Your task to perform on an android device: Go to ESPN.com Image 0: 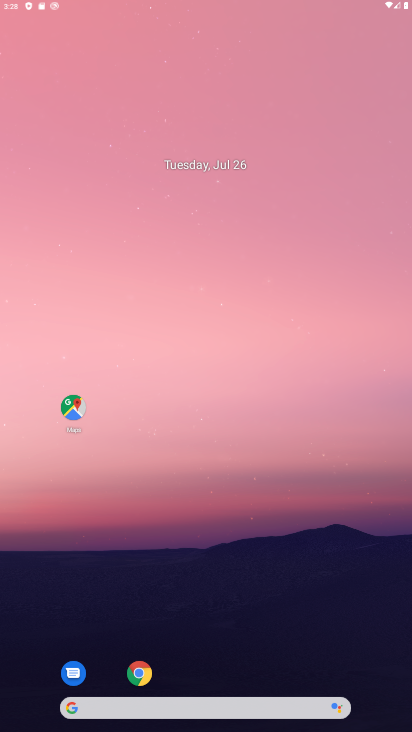
Step 0: click (121, 700)
Your task to perform on an android device: Go to ESPN.com Image 1: 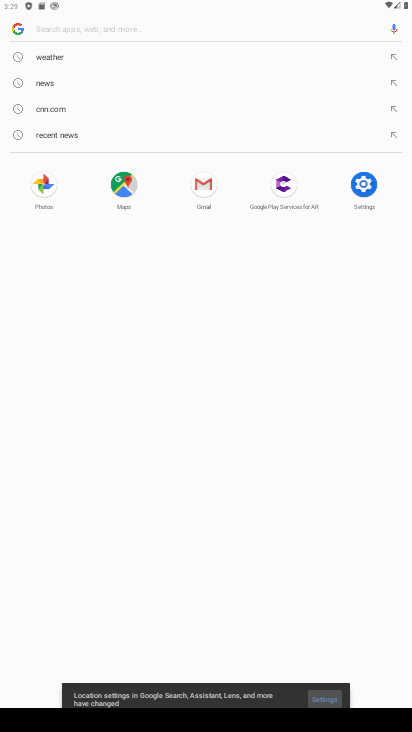
Step 1: press home button
Your task to perform on an android device: Go to ESPN.com Image 2: 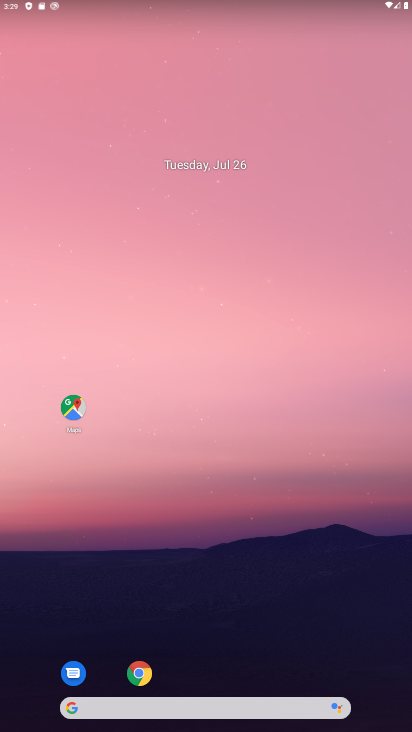
Step 2: drag from (243, 673) to (251, 183)
Your task to perform on an android device: Go to ESPN.com Image 3: 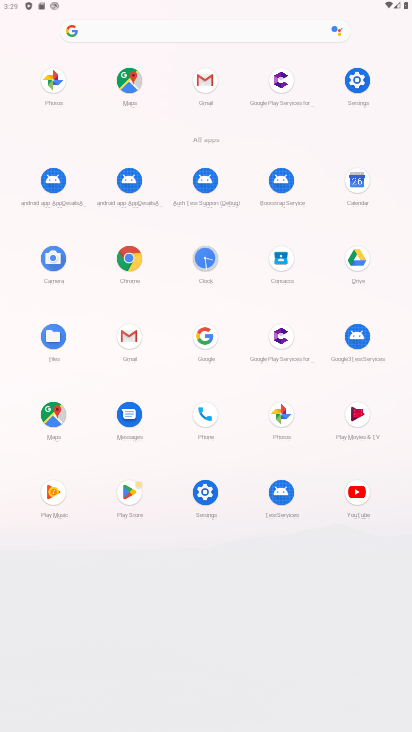
Step 3: click (139, 254)
Your task to perform on an android device: Go to ESPN.com Image 4: 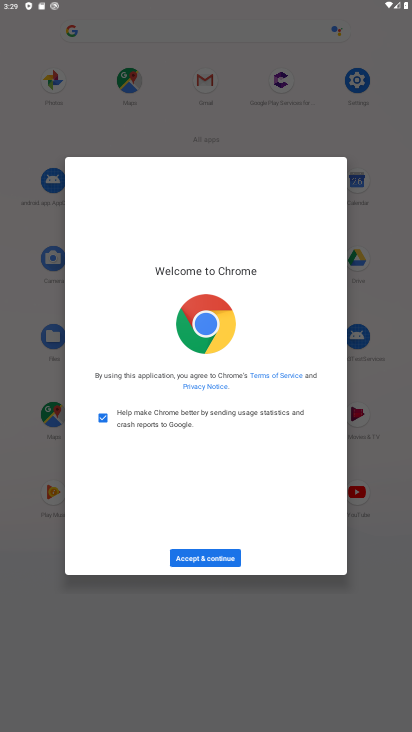
Step 4: click (216, 557)
Your task to perform on an android device: Go to ESPN.com Image 5: 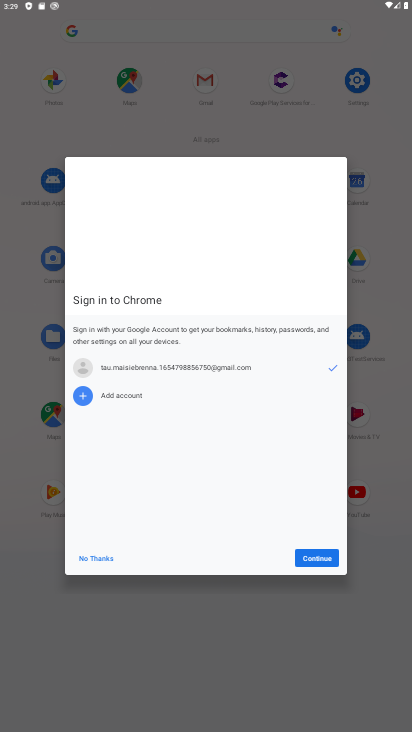
Step 5: click (315, 563)
Your task to perform on an android device: Go to ESPN.com Image 6: 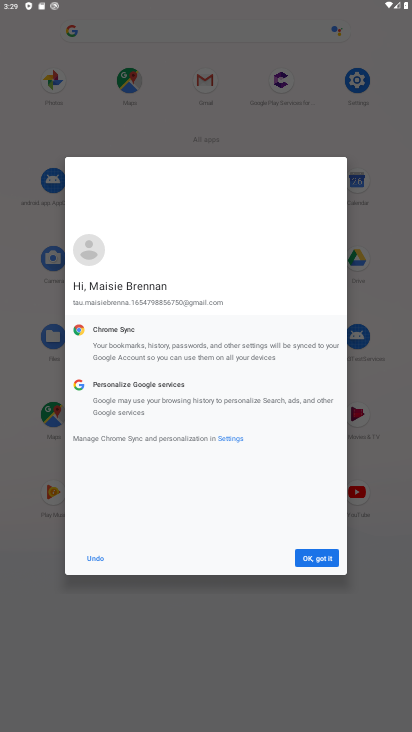
Step 6: click (315, 553)
Your task to perform on an android device: Go to ESPN.com Image 7: 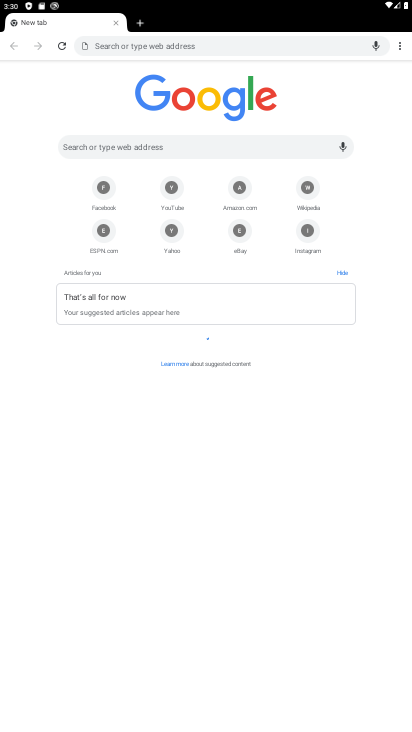
Step 7: click (103, 229)
Your task to perform on an android device: Go to ESPN.com Image 8: 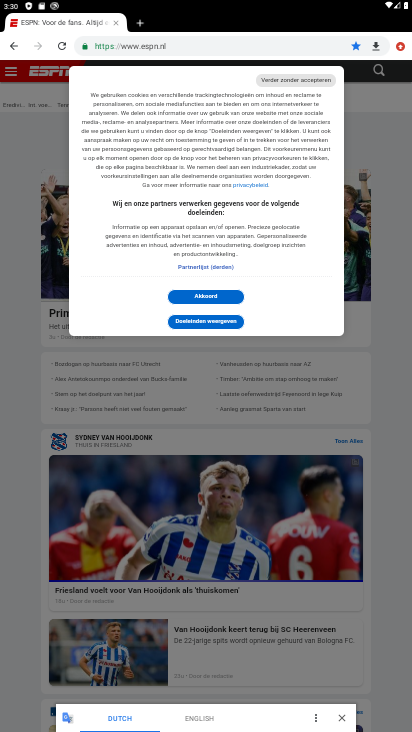
Step 8: task complete